Your task to perform on an android device: read, delete, or share a saved page in the chrome app Image 0: 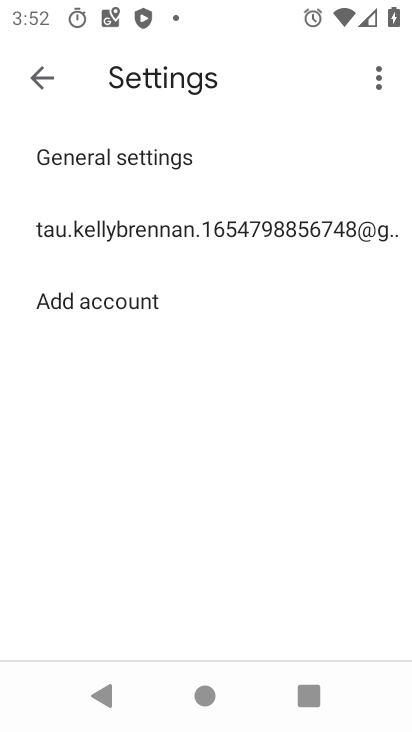
Step 0: press home button
Your task to perform on an android device: read, delete, or share a saved page in the chrome app Image 1: 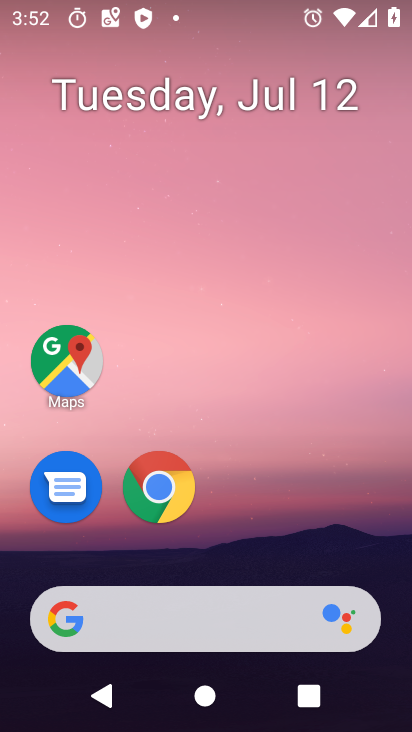
Step 1: click (152, 485)
Your task to perform on an android device: read, delete, or share a saved page in the chrome app Image 2: 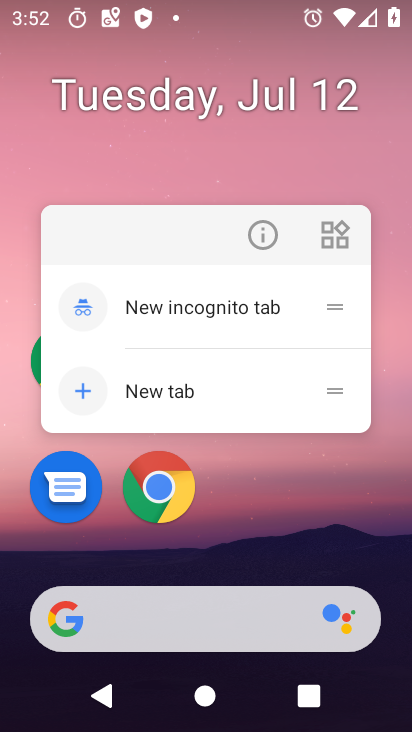
Step 2: click (152, 484)
Your task to perform on an android device: read, delete, or share a saved page in the chrome app Image 3: 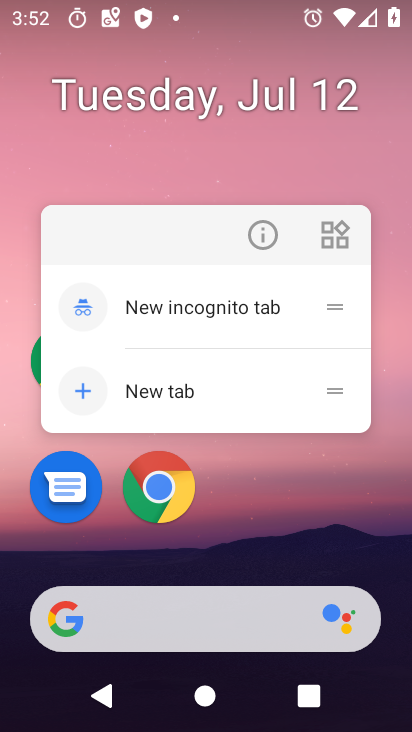
Step 3: click (152, 484)
Your task to perform on an android device: read, delete, or share a saved page in the chrome app Image 4: 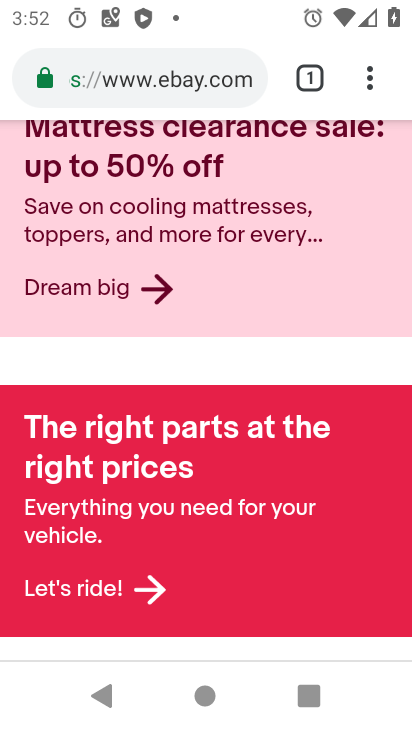
Step 4: click (374, 81)
Your task to perform on an android device: read, delete, or share a saved page in the chrome app Image 5: 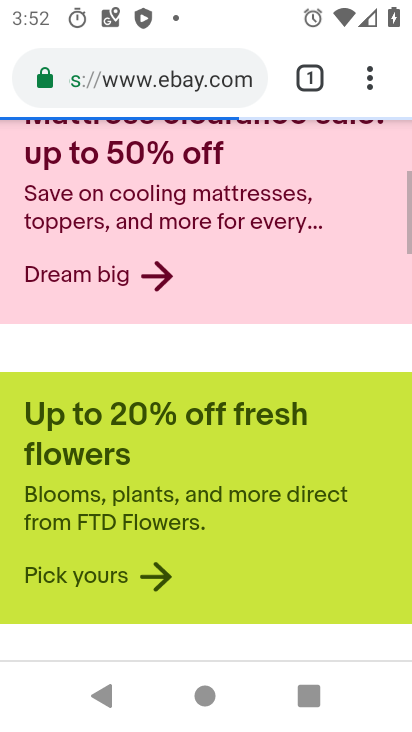
Step 5: click (370, 73)
Your task to perform on an android device: read, delete, or share a saved page in the chrome app Image 6: 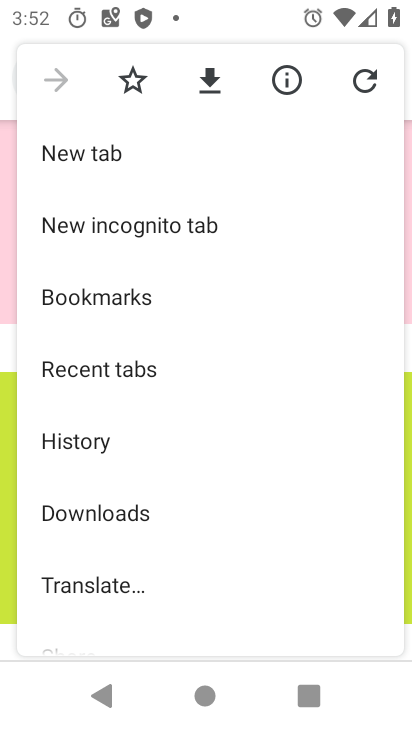
Step 6: click (80, 510)
Your task to perform on an android device: read, delete, or share a saved page in the chrome app Image 7: 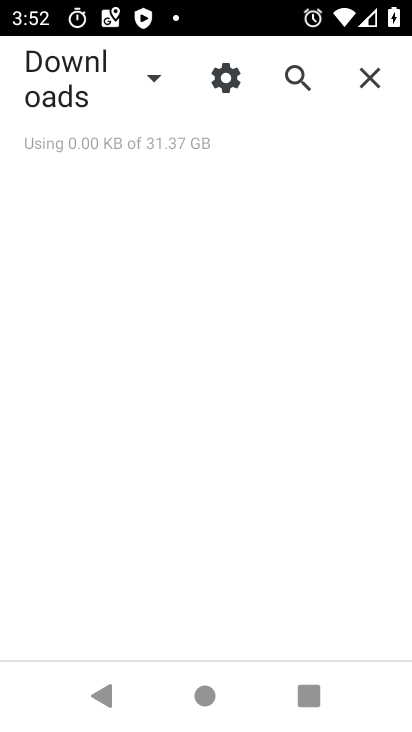
Step 7: click (153, 75)
Your task to perform on an android device: read, delete, or share a saved page in the chrome app Image 8: 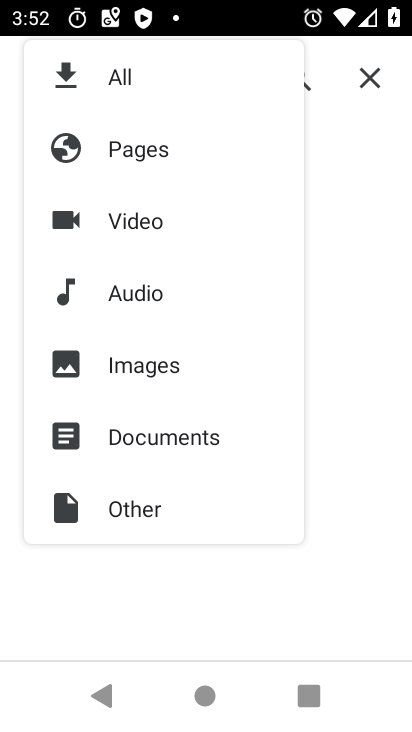
Step 8: click (109, 148)
Your task to perform on an android device: read, delete, or share a saved page in the chrome app Image 9: 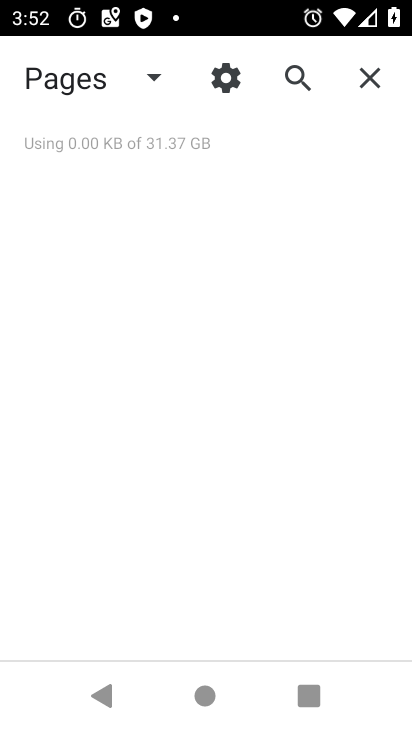
Step 9: task complete